Your task to perform on an android device: open a bookmark in the chrome app Image 0: 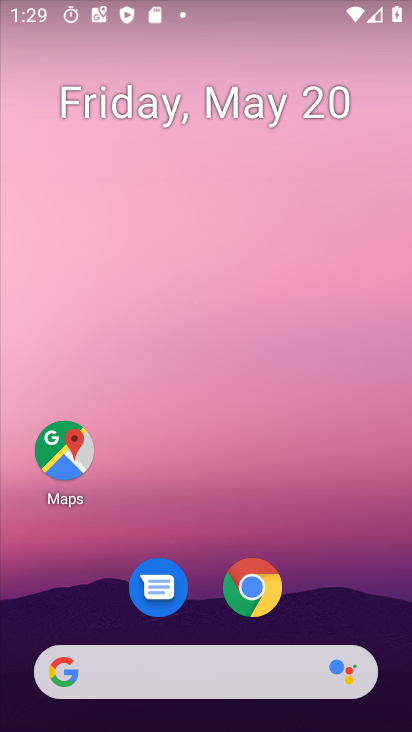
Step 0: click (257, 585)
Your task to perform on an android device: open a bookmark in the chrome app Image 1: 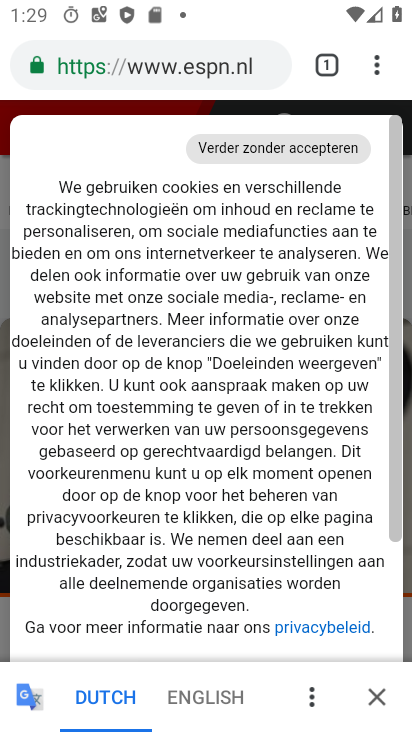
Step 1: click (390, 66)
Your task to perform on an android device: open a bookmark in the chrome app Image 2: 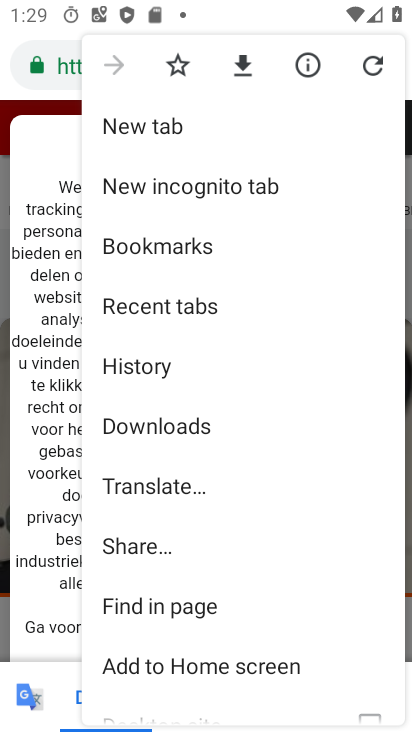
Step 2: click (191, 251)
Your task to perform on an android device: open a bookmark in the chrome app Image 3: 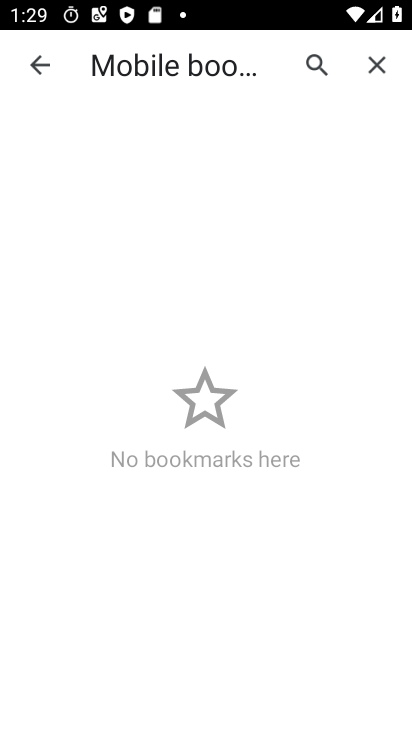
Step 3: task complete